Your task to perform on an android device: allow notifications from all sites in the chrome app Image 0: 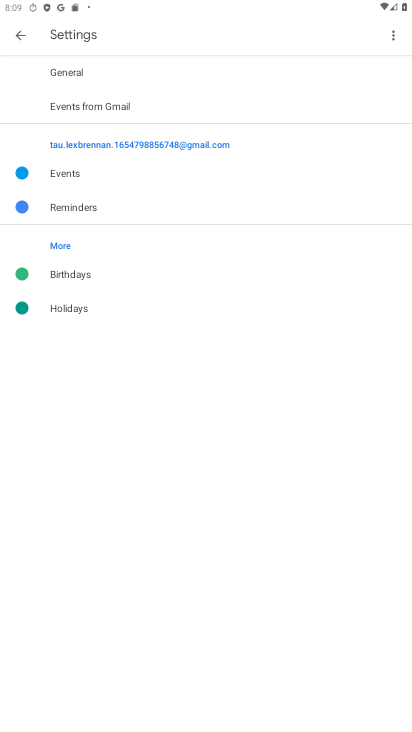
Step 0: drag from (306, 699) to (317, 258)
Your task to perform on an android device: allow notifications from all sites in the chrome app Image 1: 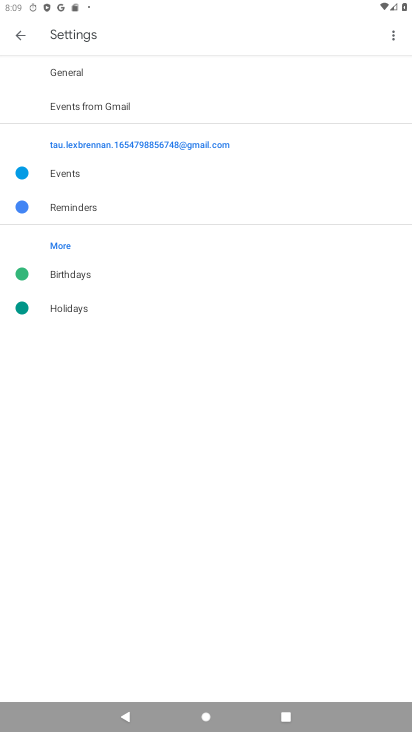
Step 1: click (33, 35)
Your task to perform on an android device: allow notifications from all sites in the chrome app Image 2: 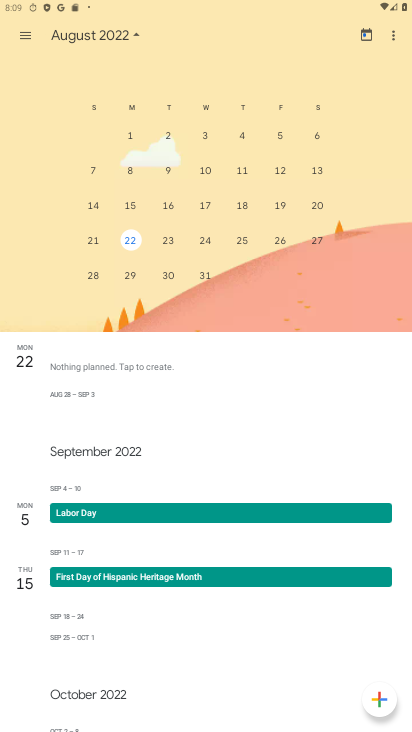
Step 2: press back button
Your task to perform on an android device: allow notifications from all sites in the chrome app Image 3: 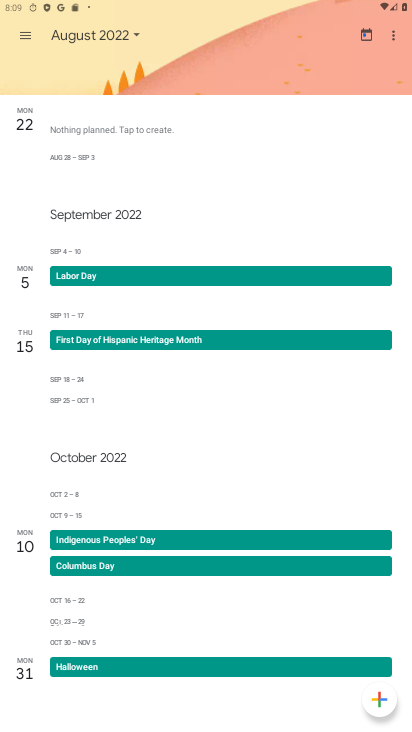
Step 3: press home button
Your task to perform on an android device: allow notifications from all sites in the chrome app Image 4: 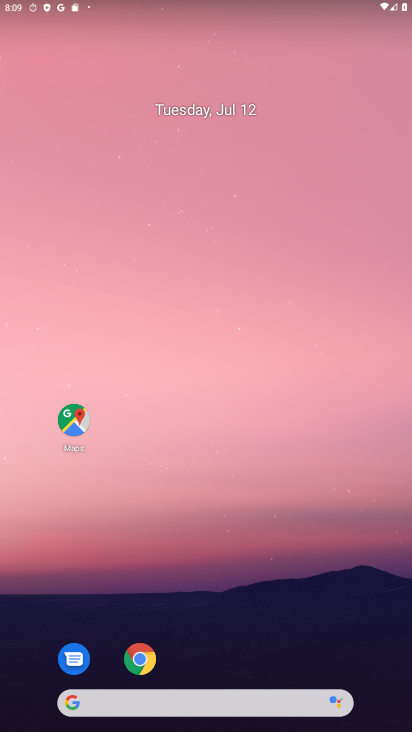
Step 4: drag from (254, 469) to (254, 302)
Your task to perform on an android device: allow notifications from all sites in the chrome app Image 5: 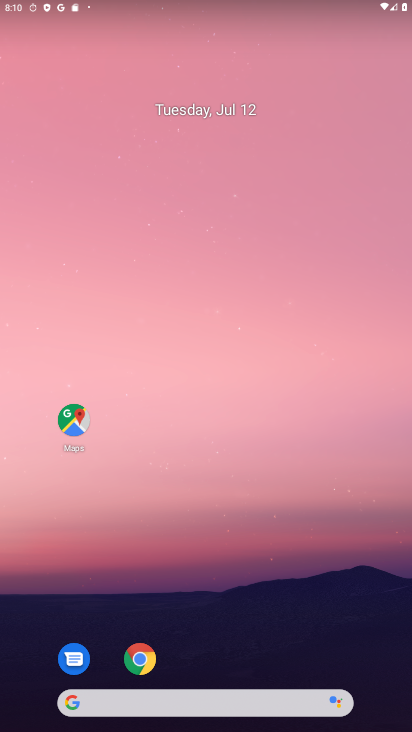
Step 5: drag from (267, 517) to (216, 223)
Your task to perform on an android device: allow notifications from all sites in the chrome app Image 6: 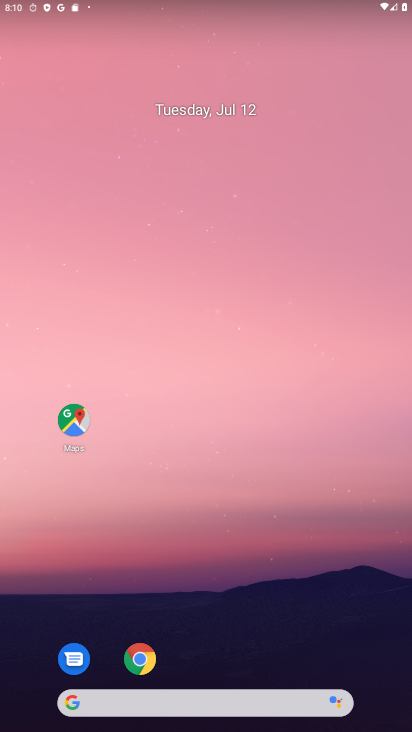
Step 6: drag from (234, 526) to (136, 67)
Your task to perform on an android device: allow notifications from all sites in the chrome app Image 7: 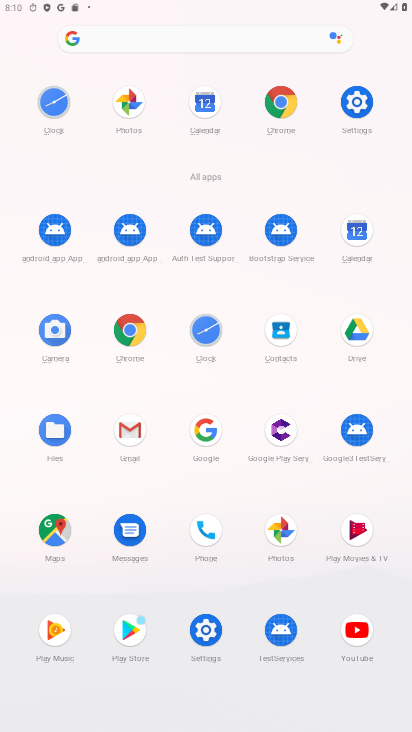
Step 7: click (132, 336)
Your task to perform on an android device: allow notifications from all sites in the chrome app Image 8: 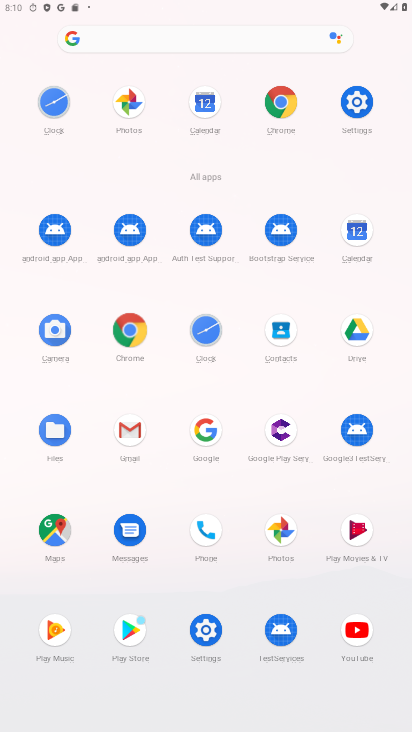
Step 8: click (132, 336)
Your task to perform on an android device: allow notifications from all sites in the chrome app Image 9: 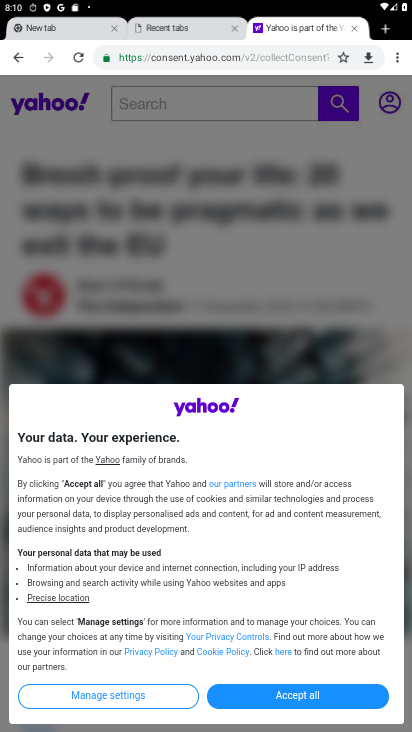
Step 9: drag from (393, 55) to (276, 375)
Your task to perform on an android device: allow notifications from all sites in the chrome app Image 10: 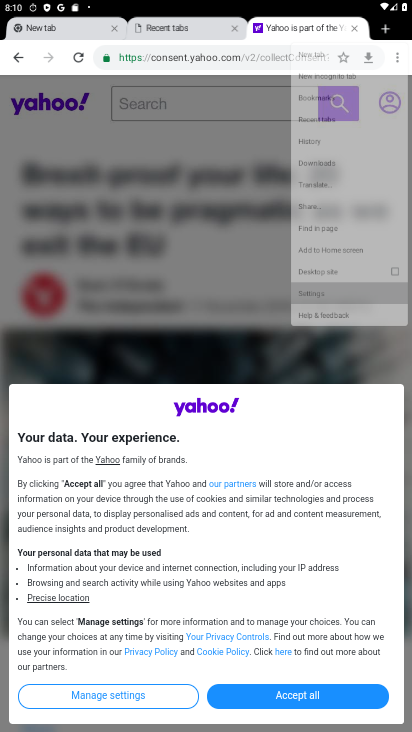
Step 10: click (271, 380)
Your task to perform on an android device: allow notifications from all sites in the chrome app Image 11: 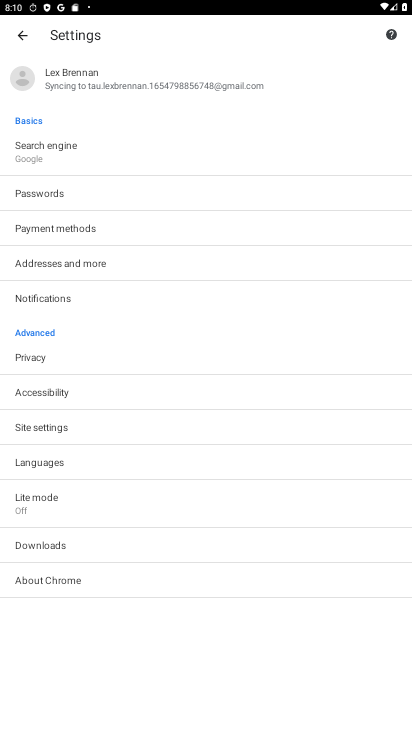
Step 11: click (42, 413)
Your task to perform on an android device: allow notifications from all sites in the chrome app Image 12: 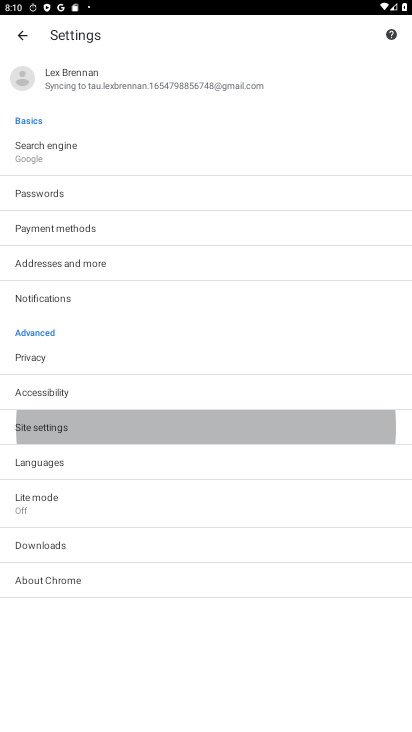
Step 12: click (42, 424)
Your task to perform on an android device: allow notifications from all sites in the chrome app Image 13: 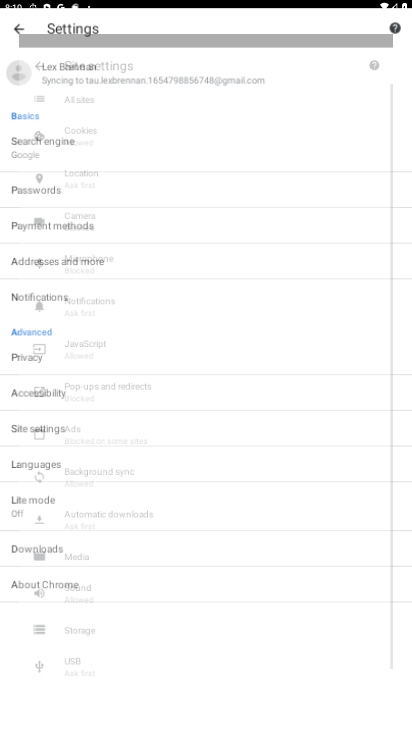
Step 13: click (42, 425)
Your task to perform on an android device: allow notifications from all sites in the chrome app Image 14: 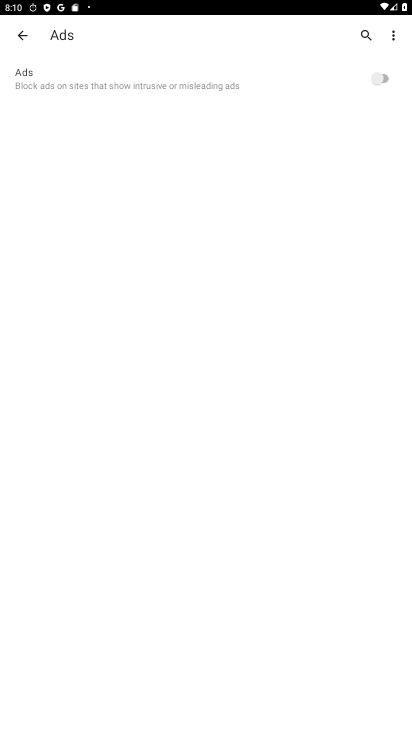
Step 14: click (20, 31)
Your task to perform on an android device: allow notifications from all sites in the chrome app Image 15: 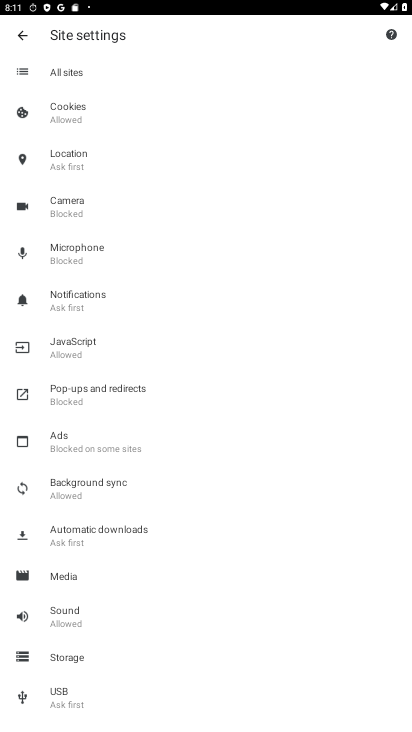
Step 15: click (62, 68)
Your task to perform on an android device: allow notifications from all sites in the chrome app Image 16: 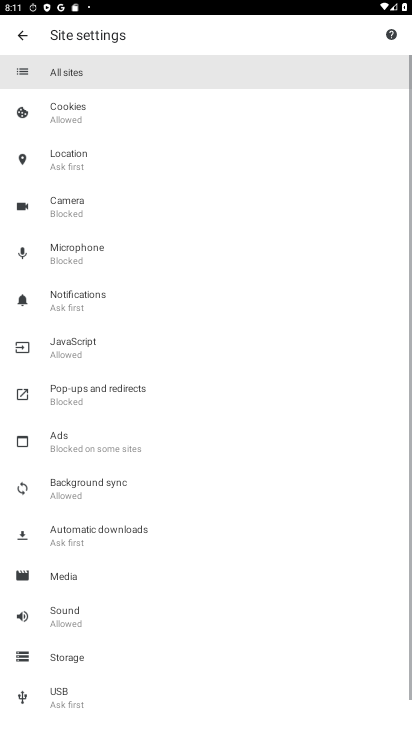
Step 16: click (62, 68)
Your task to perform on an android device: allow notifications from all sites in the chrome app Image 17: 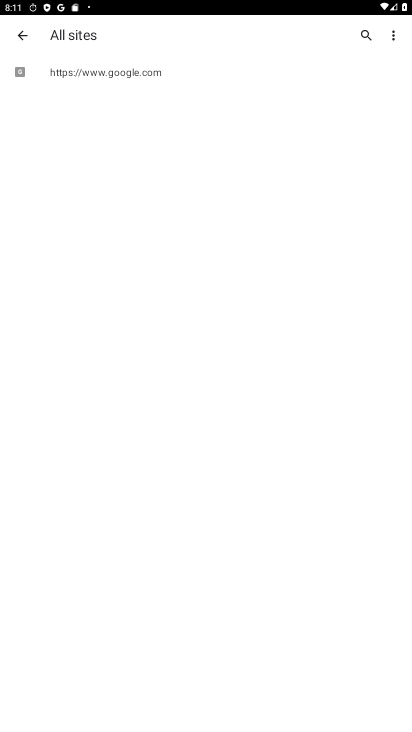
Step 17: task complete